Your task to perform on an android device: Open network settings Image 0: 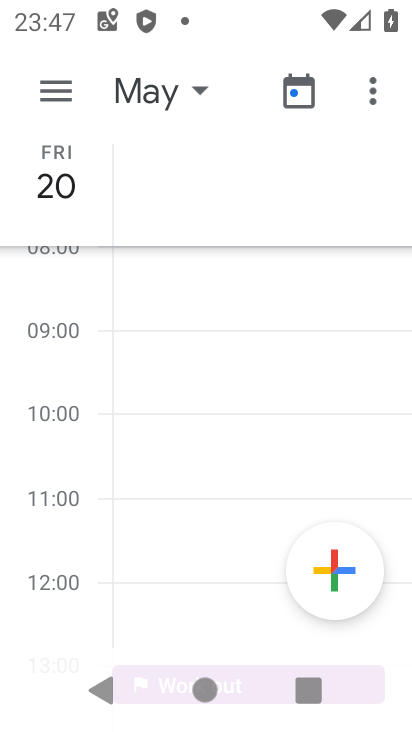
Step 0: press home button
Your task to perform on an android device: Open network settings Image 1: 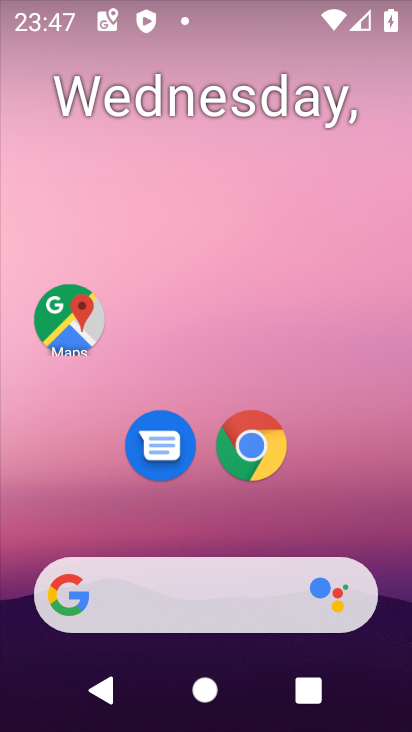
Step 1: drag from (245, 576) to (314, 199)
Your task to perform on an android device: Open network settings Image 2: 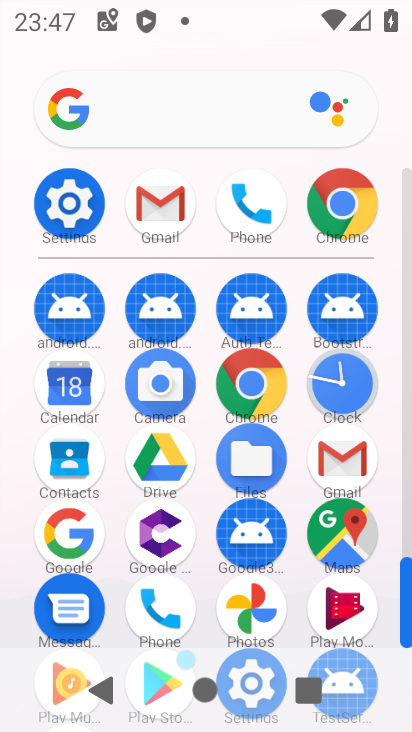
Step 2: click (81, 197)
Your task to perform on an android device: Open network settings Image 3: 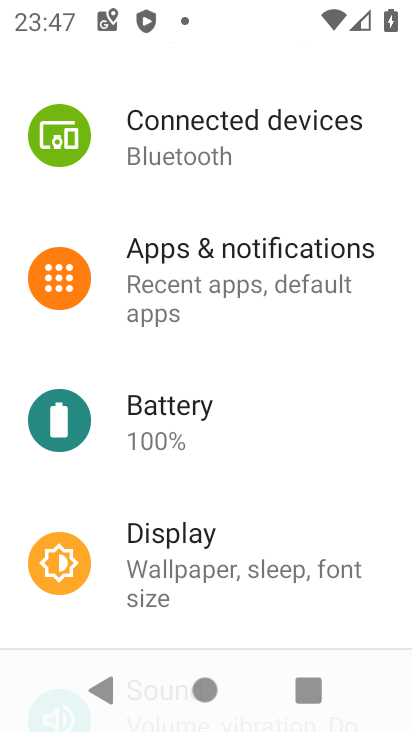
Step 3: drag from (236, 148) to (205, 519)
Your task to perform on an android device: Open network settings Image 4: 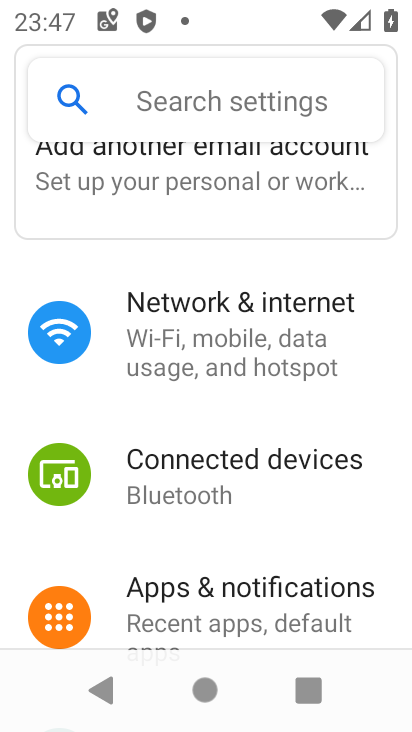
Step 4: click (225, 304)
Your task to perform on an android device: Open network settings Image 5: 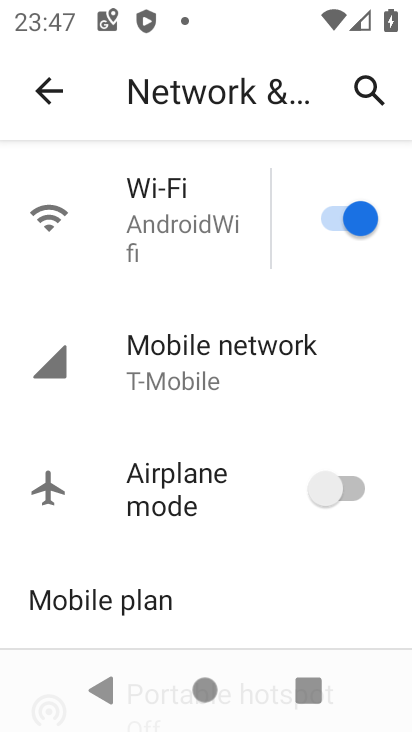
Step 5: click (236, 368)
Your task to perform on an android device: Open network settings Image 6: 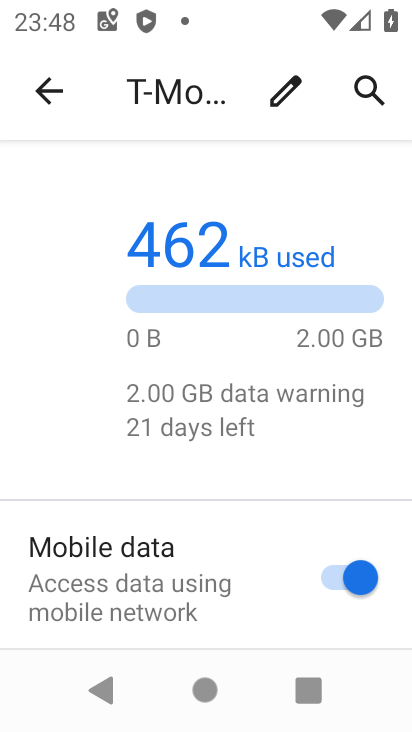
Step 6: task complete